Your task to perform on an android device: Go to privacy settings Image 0: 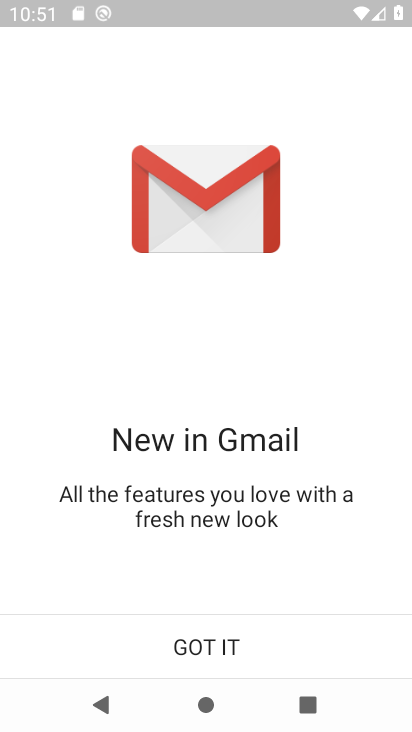
Step 0: press home button
Your task to perform on an android device: Go to privacy settings Image 1: 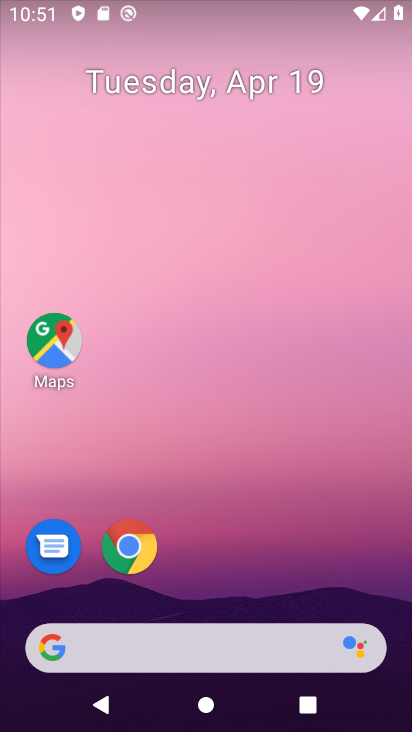
Step 1: drag from (238, 484) to (252, 703)
Your task to perform on an android device: Go to privacy settings Image 2: 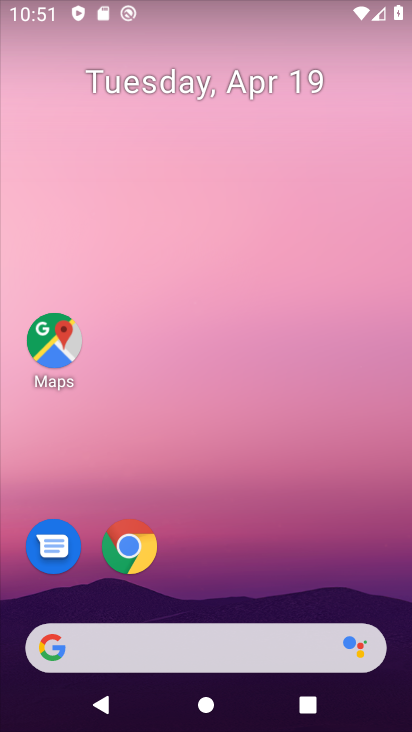
Step 2: drag from (312, 14) to (279, 588)
Your task to perform on an android device: Go to privacy settings Image 3: 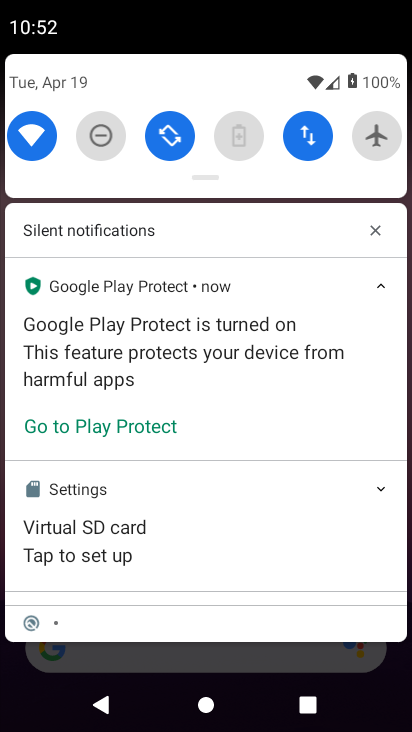
Step 3: drag from (187, 221) to (242, 555)
Your task to perform on an android device: Go to privacy settings Image 4: 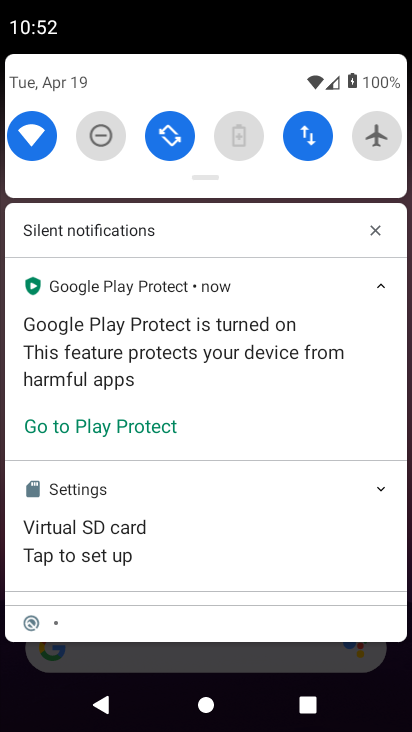
Step 4: drag from (189, 75) to (224, 626)
Your task to perform on an android device: Go to privacy settings Image 5: 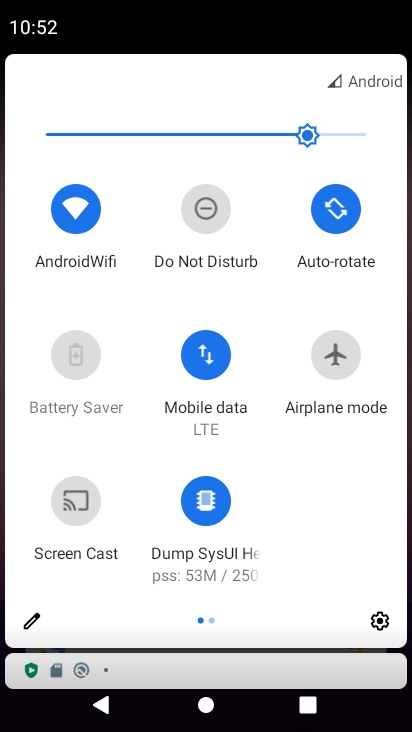
Step 5: click (377, 626)
Your task to perform on an android device: Go to privacy settings Image 6: 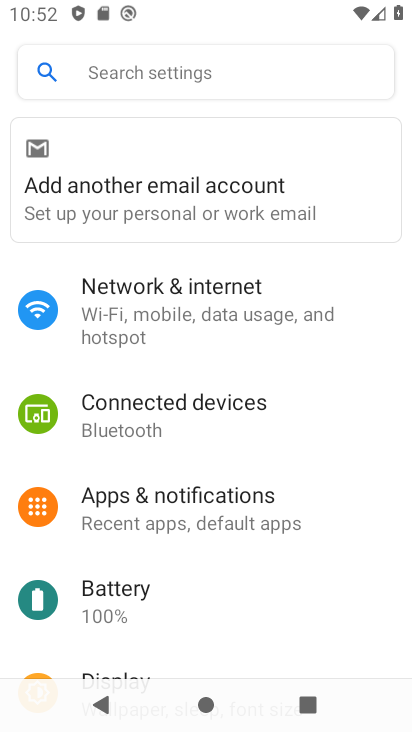
Step 6: drag from (116, 646) to (160, 116)
Your task to perform on an android device: Go to privacy settings Image 7: 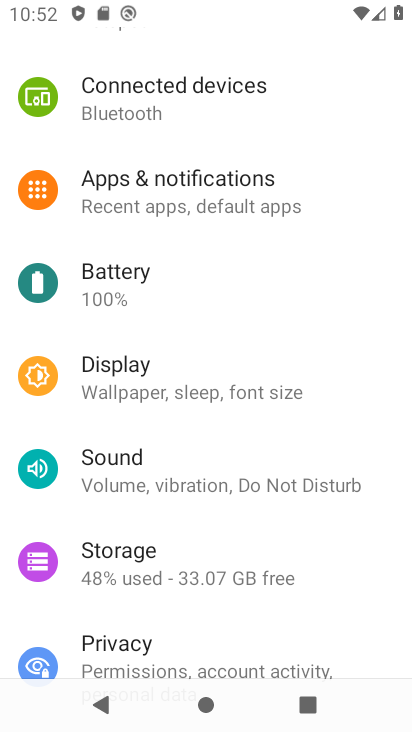
Step 7: drag from (110, 639) to (135, 107)
Your task to perform on an android device: Go to privacy settings Image 8: 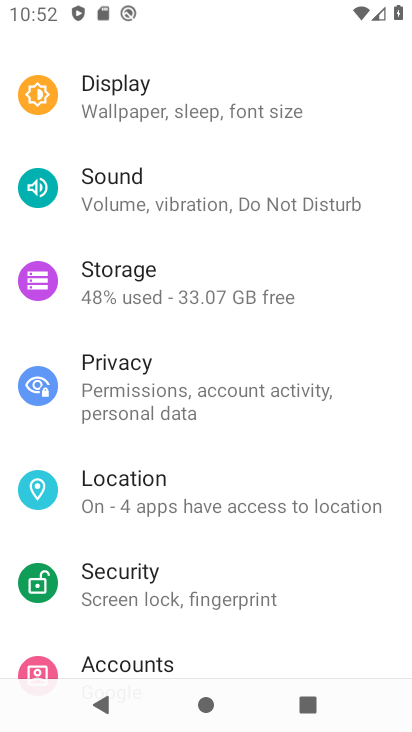
Step 8: drag from (184, 641) to (213, 62)
Your task to perform on an android device: Go to privacy settings Image 9: 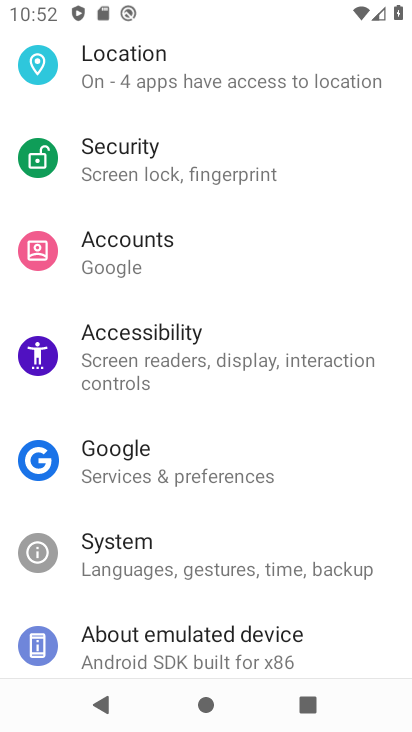
Step 9: drag from (150, 135) to (139, 524)
Your task to perform on an android device: Go to privacy settings Image 10: 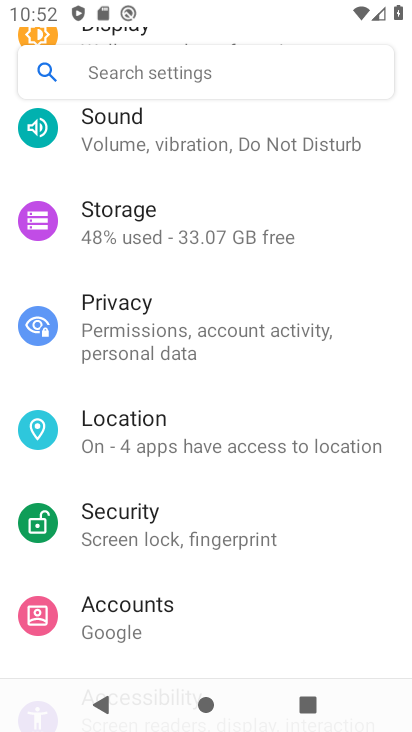
Step 10: drag from (176, 170) to (167, 336)
Your task to perform on an android device: Go to privacy settings Image 11: 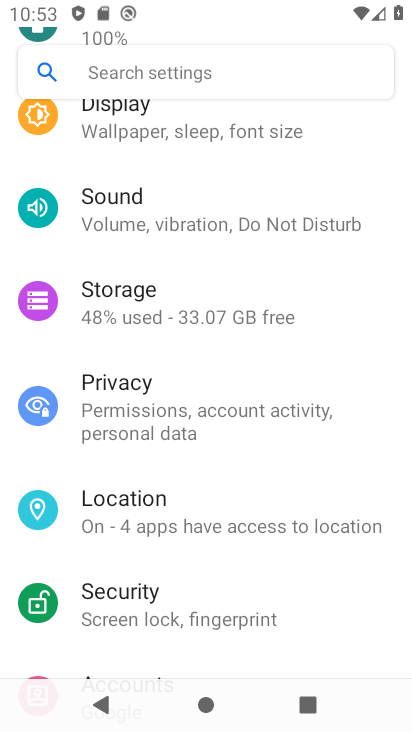
Step 11: click (137, 402)
Your task to perform on an android device: Go to privacy settings Image 12: 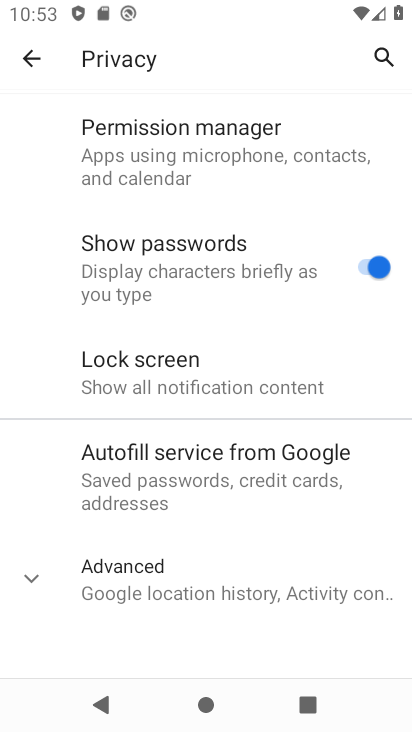
Step 12: task complete